Your task to perform on an android device: change keyboard looks Image 0: 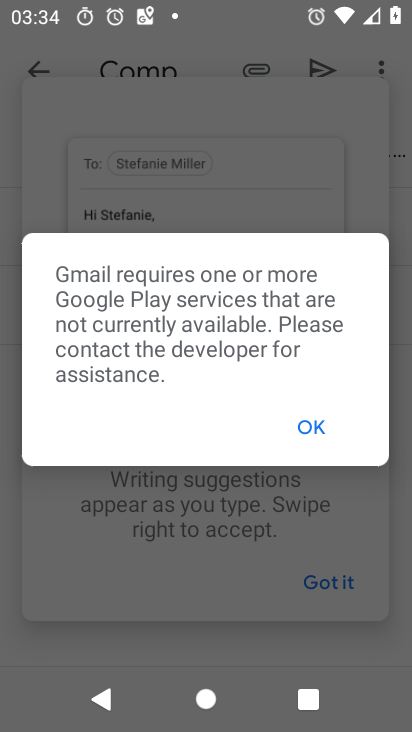
Step 0: press home button
Your task to perform on an android device: change keyboard looks Image 1: 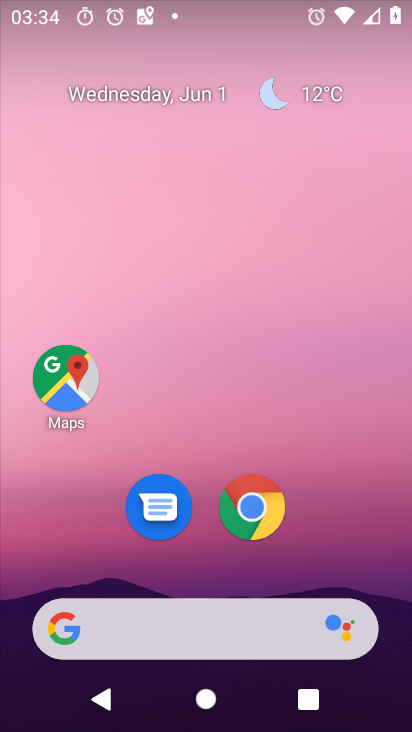
Step 1: drag from (347, 582) to (247, 7)
Your task to perform on an android device: change keyboard looks Image 2: 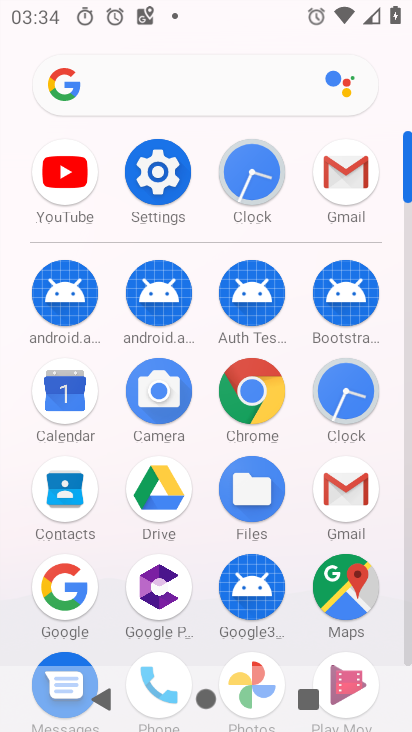
Step 2: click (171, 168)
Your task to perform on an android device: change keyboard looks Image 3: 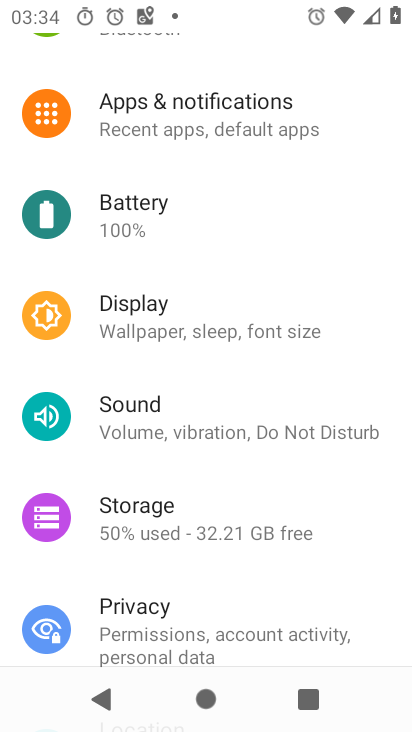
Step 3: drag from (310, 591) to (294, 121)
Your task to perform on an android device: change keyboard looks Image 4: 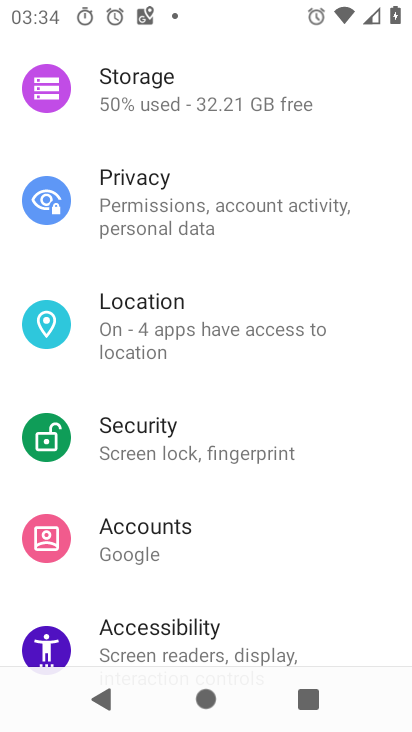
Step 4: drag from (254, 557) to (235, 118)
Your task to perform on an android device: change keyboard looks Image 5: 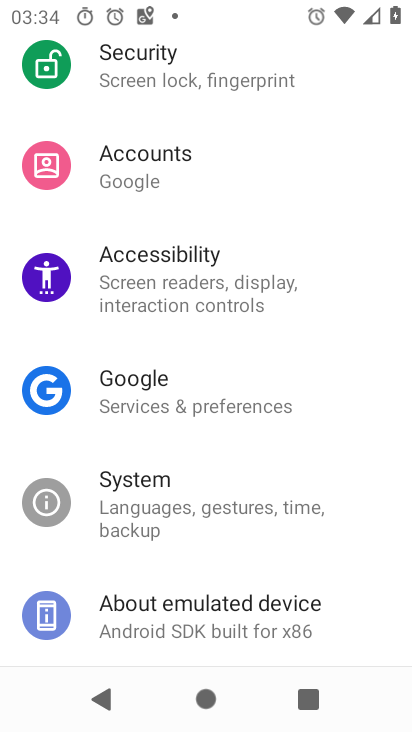
Step 5: click (169, 496)
Your task to perform on an android device: change keyboard looks Image 6: 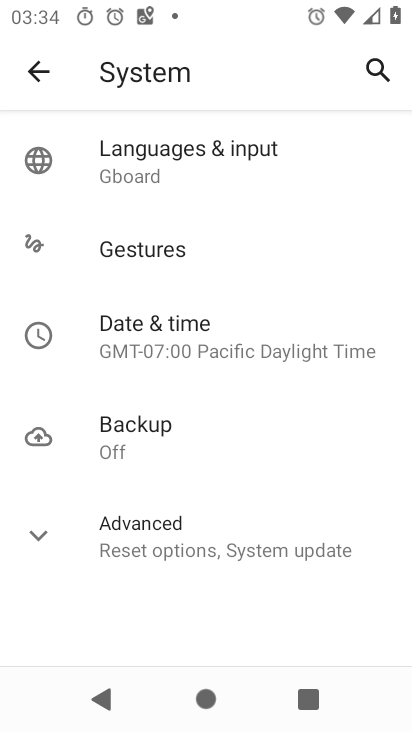
Step 6: click (127, 175)
Your task to perform on an android device: change keyboard looks Image 7: 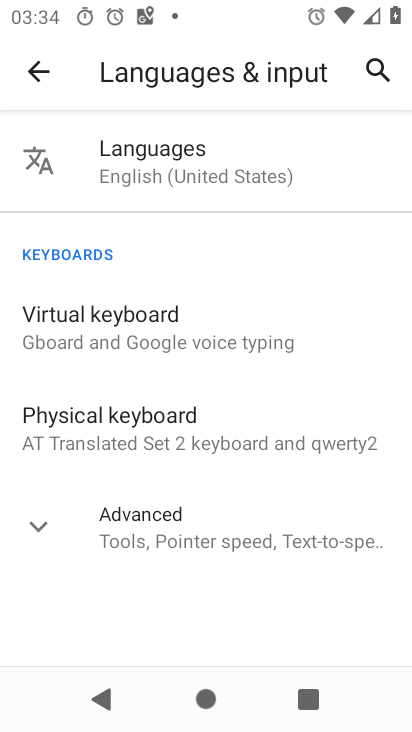
Step 7: click (92, 332)
Your task to perform on an android device: change keyboard looks Image 8: 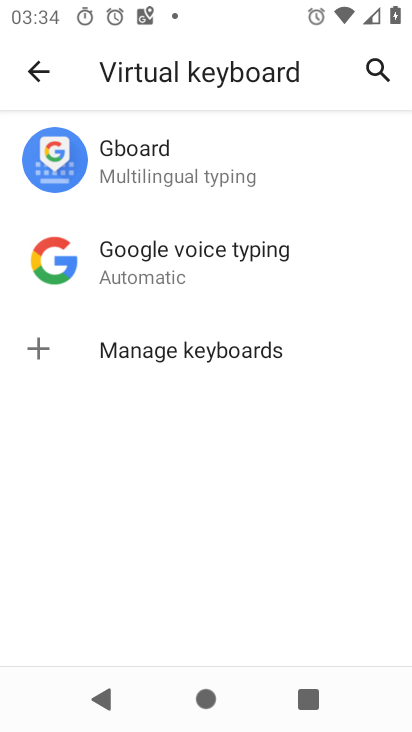
Step 8: click (124, 165)
Your task to perform on an android device: change keyboard looks Image 9: 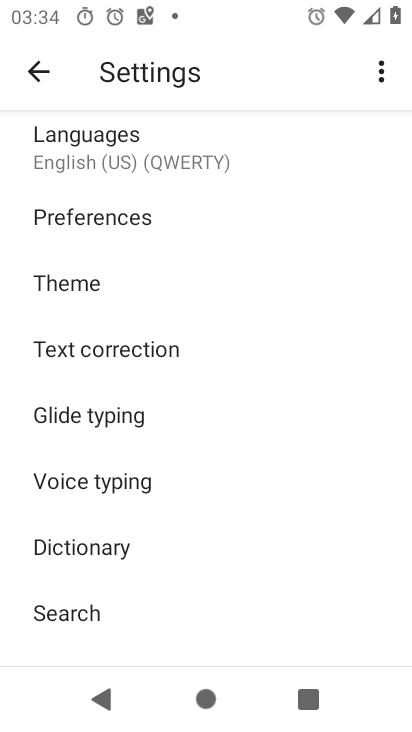
Step 9: click (73, 292)
Your task to perform on an android device: change keyboard looks Image 10: 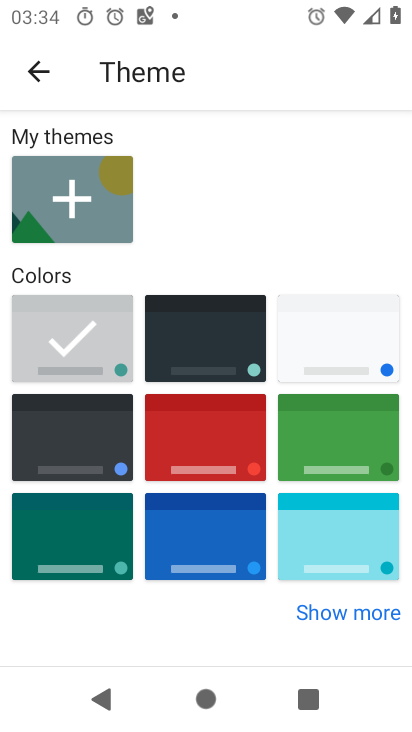
Step 10: click (238, 583)
Your task to perform on an android device: change keyboard looks Image 11: 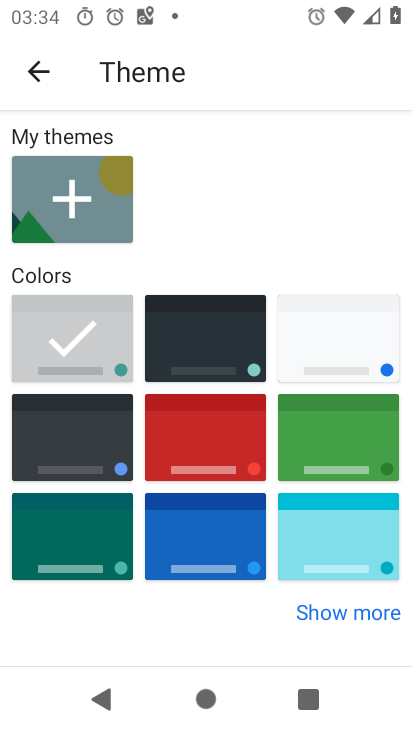
Step 11: click (236, 555)
Your task to perform on an android device: change keyboard looks Image 12: 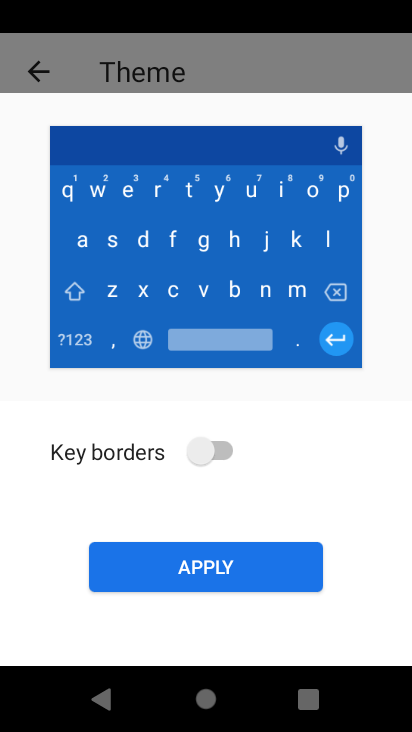
Step 12: click (202, 460)
Your task to perform on an android device: change keyboard looks Image 13: 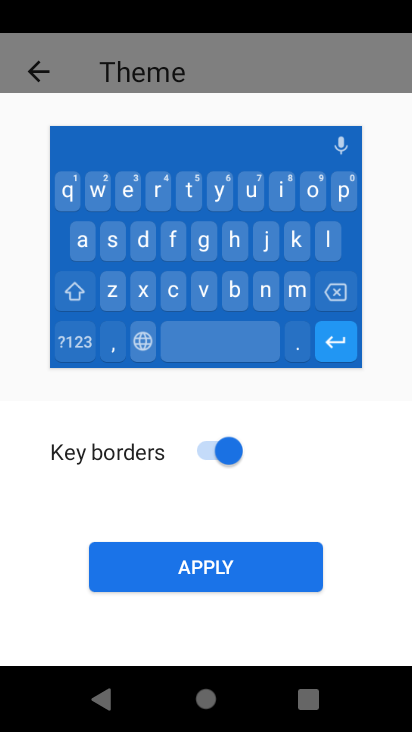
Step 13: click (191, 542)
Your task to perform on an android device: change keyboard looks Image 14: 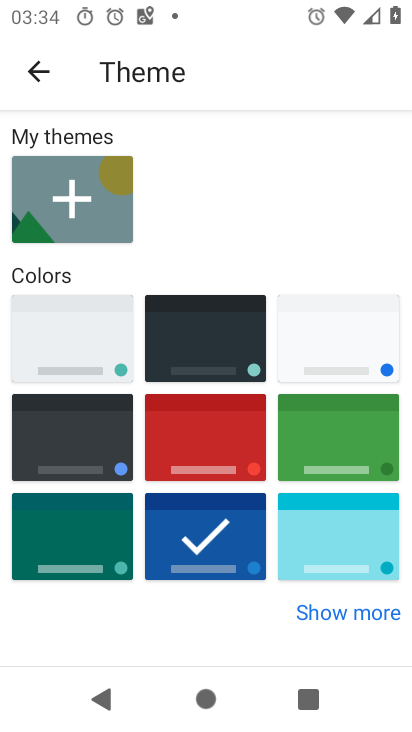
Step 14: task complete